Your task to perform on an android device: Show me recent news Image 0: 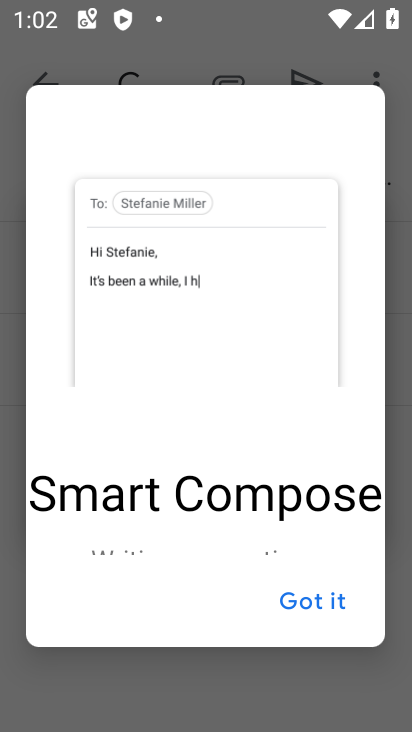
Step 0: press home button
Your task to perform on an android device: Show me recent news Image 1: 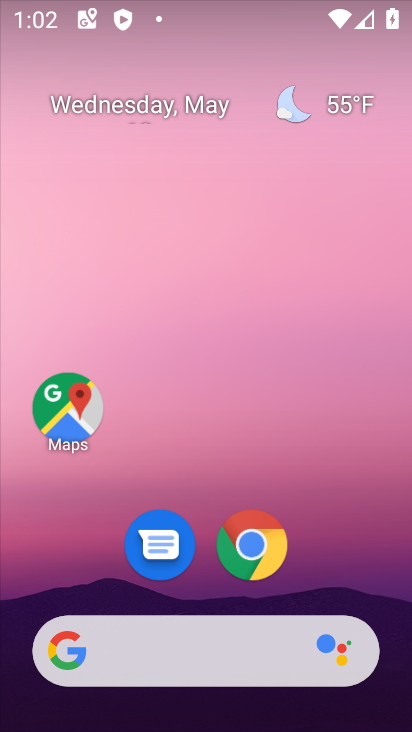
Step 1: task complete